Your task to perform on an android device: toggle show notifications on the lock screen Image 0: 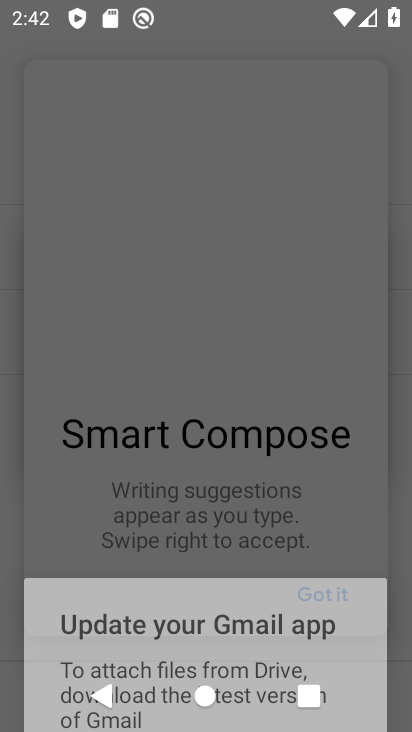
Step 0: press back button
Your task to perform on an android device: toggle show notifications on the lock screen Image 1: 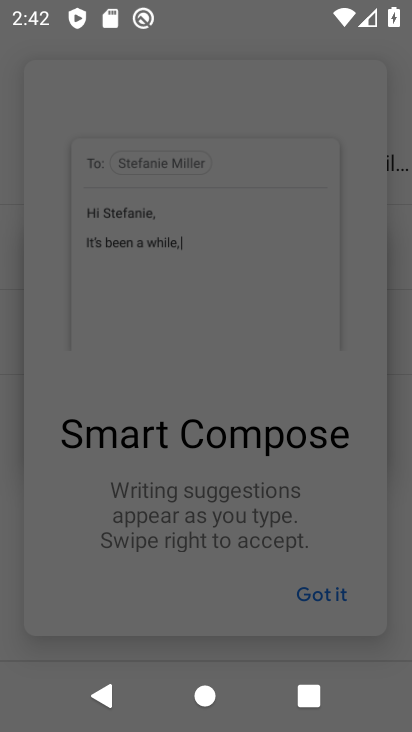
Step 1: press home button
Your task to perform on an android device: toggle show notifications on the lock screen Image 2: 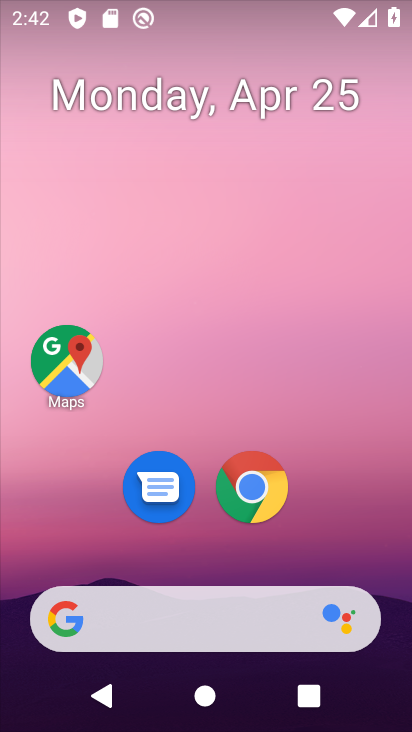
Step 2: drag from (171, 580) to (314, 0)
Your task to perform on an android device: toggle show notifications on the lock screen Image 3: 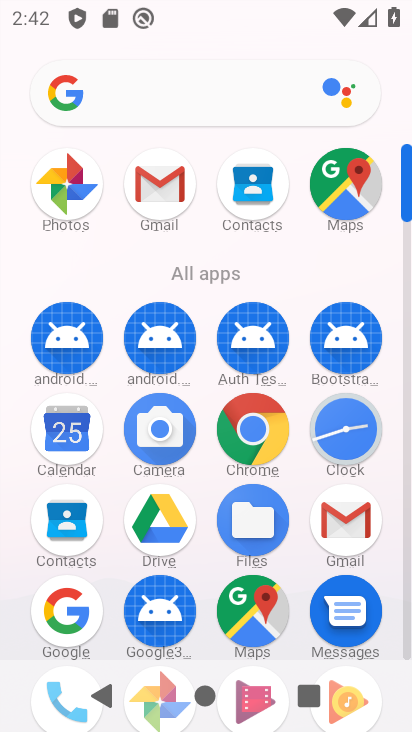
Step 3: drag from (196, 549) to (239, 285)
Your task to perform on an android device: toggle show notifications on the lock screen Image 4: 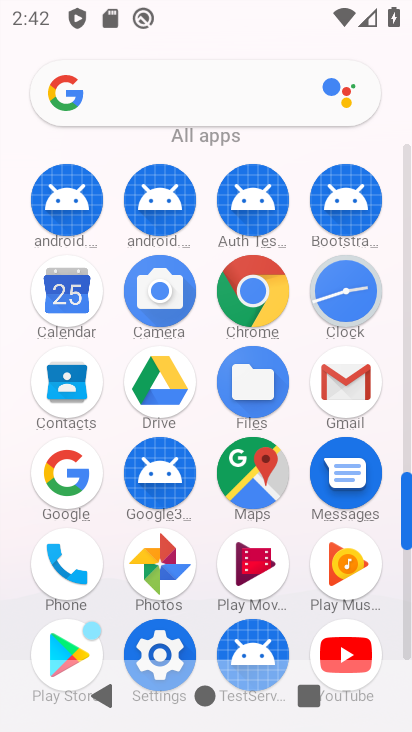
Step 4: click (161, 643)
Your task to perform on an android device: toggle show notifications on the lock screen Image 5: 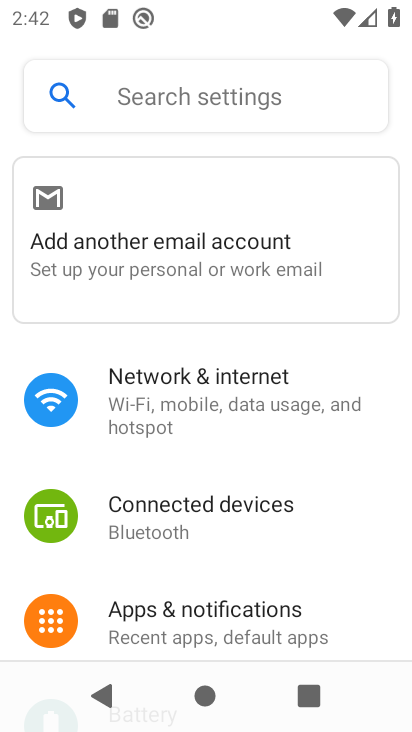
Step 5: drag from (195, 543) to (282, 172)
Your task to perform on an android device: toggle show notifications on the lock screen Image 6: 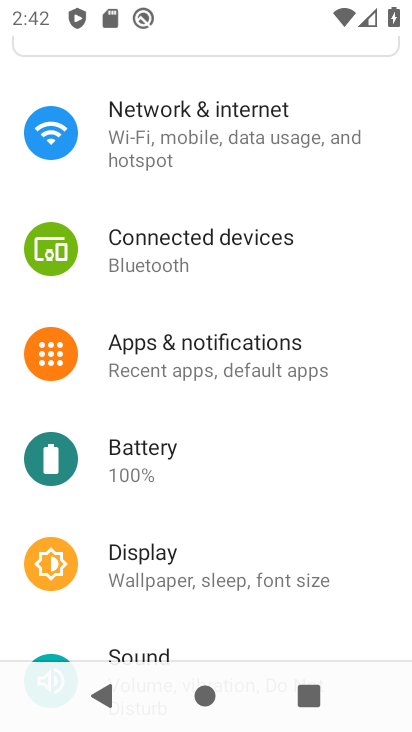
Step 6: drag from (159, 607) to (205, 367)
Your task to perform on an android device: toggle show notifications on the lock screen Image 7: 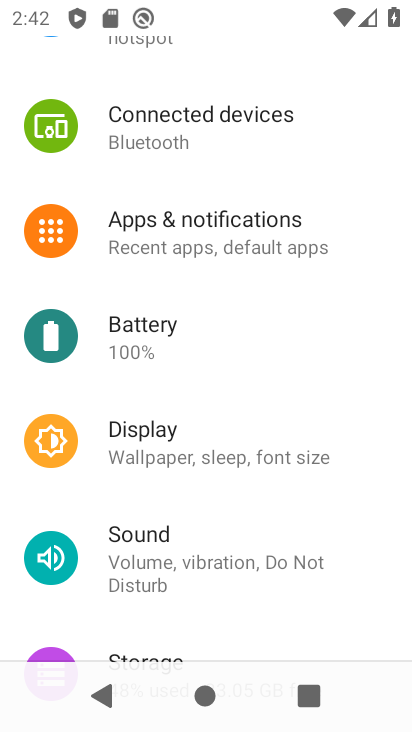
Step 7: click (197, 248)
Your task to perform on an android device: toggle show notifications on the lock screen Image 8: 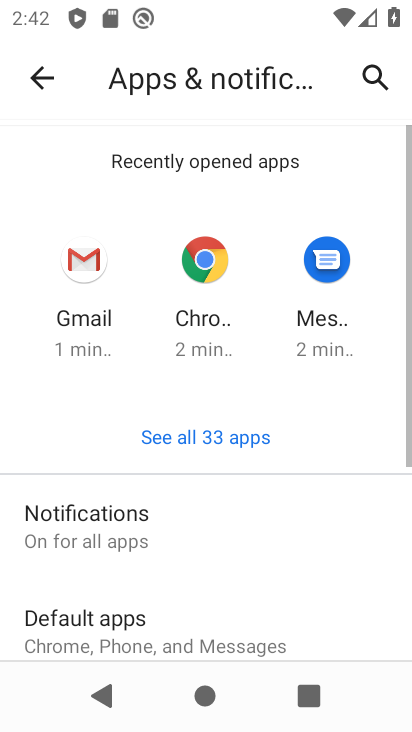
Step 8: drag from (173, 562) to (256, 216)
Your task to perform on an android device: toggle show notifications on the lock screen Image 9: 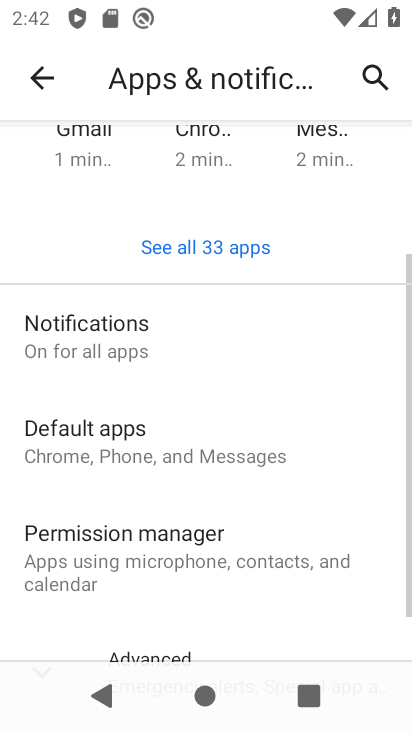
Step 9: drag from (207, 505) to (274, 236)
Your task to perform on an android device: toggle show notifications on the lock screen Image 10: 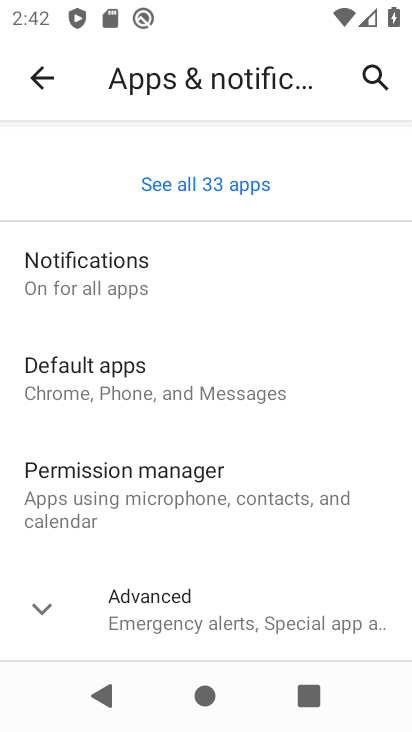
Step 10: click (184, 627)
Your task to perform on an android device: toggle show notifications on the lock screen Image 11: 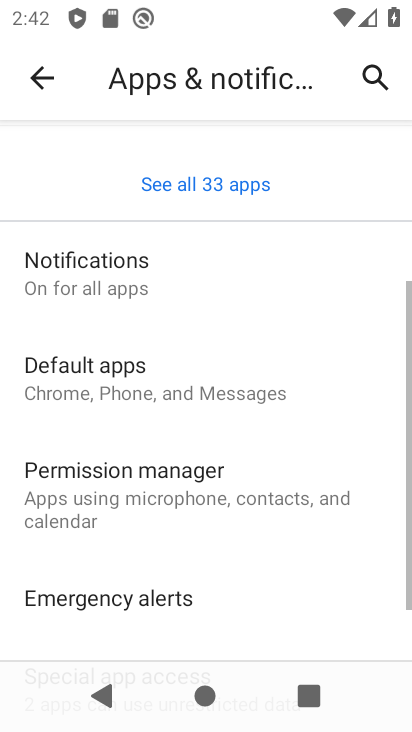
Step 11: drag from (189, 583) to (320, 159)
Your task to perform on an android device: toggle show notifications on the lock screen Image 12: 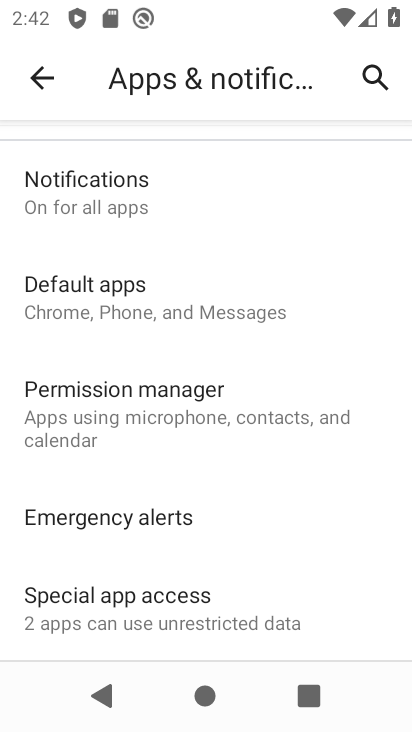
Step 12: drag from (256, 301) to (221, 605)
Your task to perform on an android device: toggle show notifications on the lock screen Image 13: 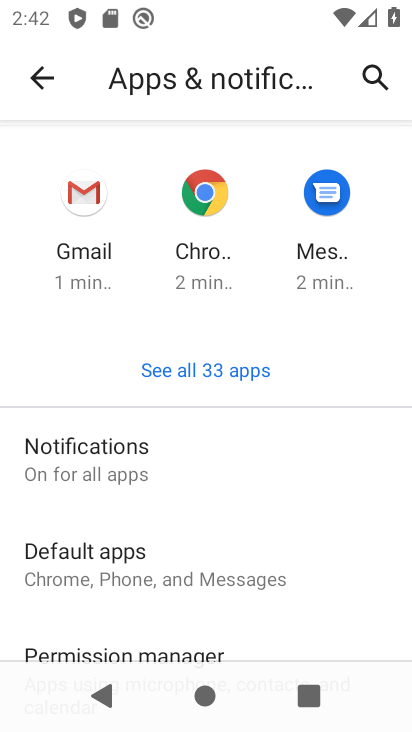
Step 13: click (156, 457)
Your task to perform on an android device: toggle show notifications on the lock screen Image 14: 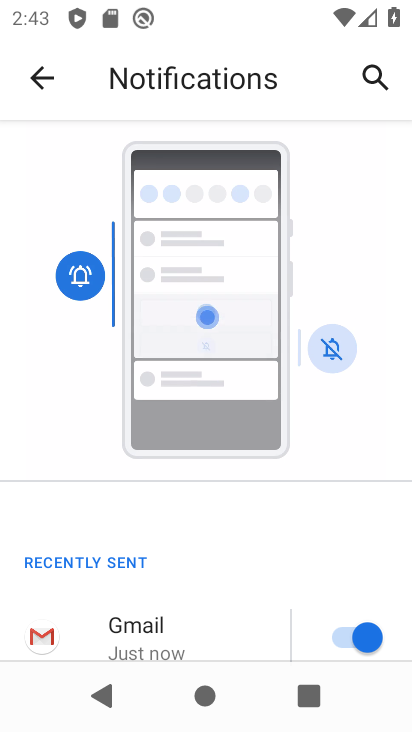
Step 14: drag from (167, 592) to (318, 111)
Your task to perform on an android device: toggle show notifications on the lock screen Image 15: 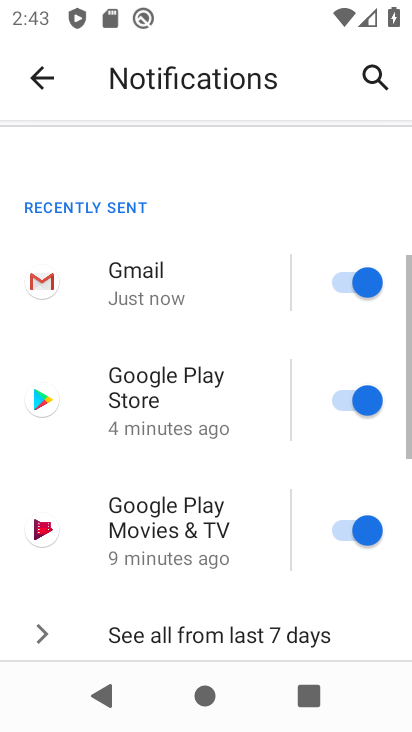
Step 15: drag from (155, 552) to (257, 161)
Your task to perform on an android device: toggle show notifications on the lock screen Image 16: 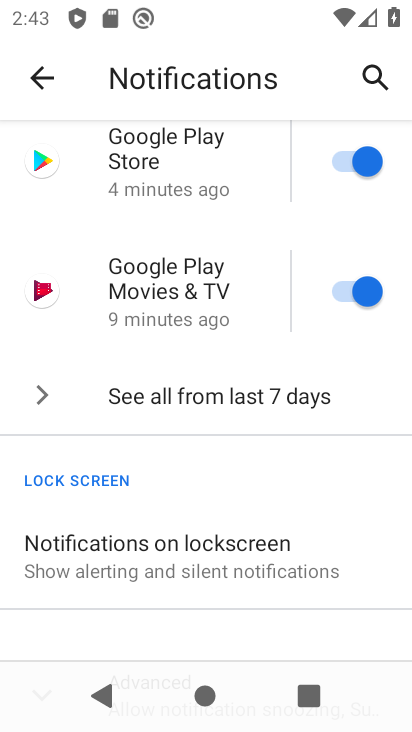
Step 16: click (205, 555)
Your task to perform on an android device: toggle show notifications on the lock screen Image 17: 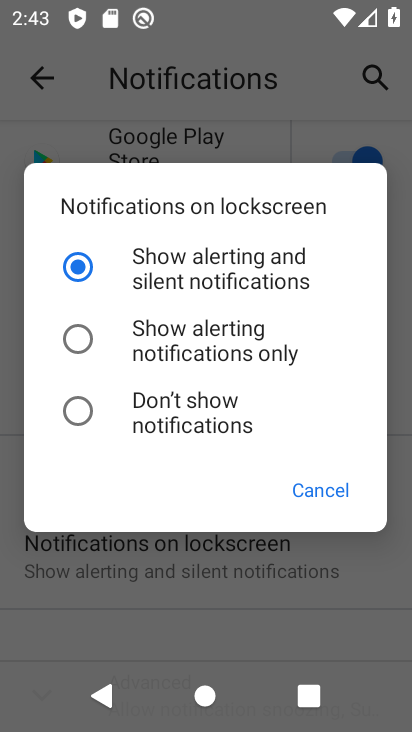
Step 17: click (101, 415)
Your task to perform on an android device: toggle show notifications on the lock screen Image 18: 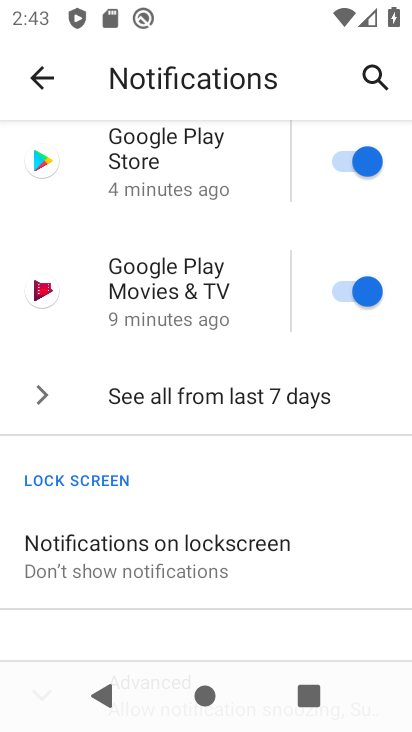
Step 18: task complete